Your task to perform on an android device: Open wifi settings Image 0: 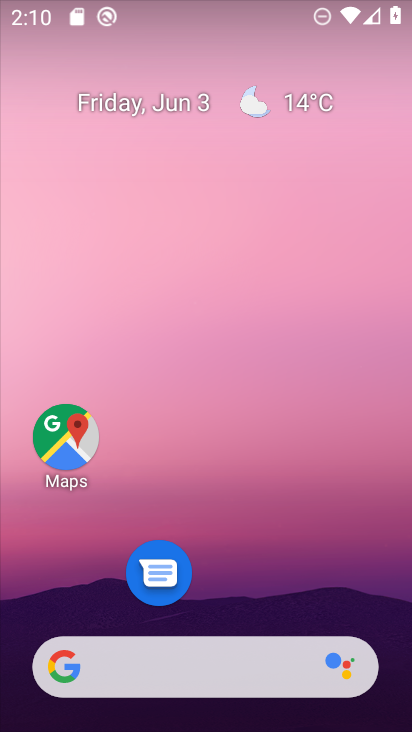
Step 0: drag from (248, 646) to (287, 101)
Your task to perform on an android device: Open wifi settings Image 1: 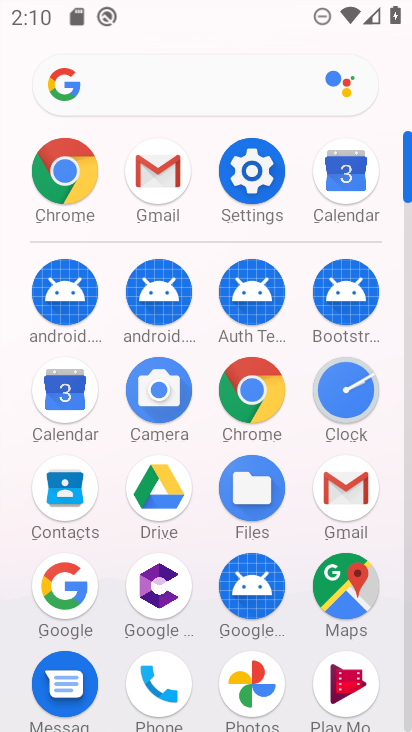
Step 1: click (255, 179)
Your task to perform on an android device: Open wifi settings Image 2: 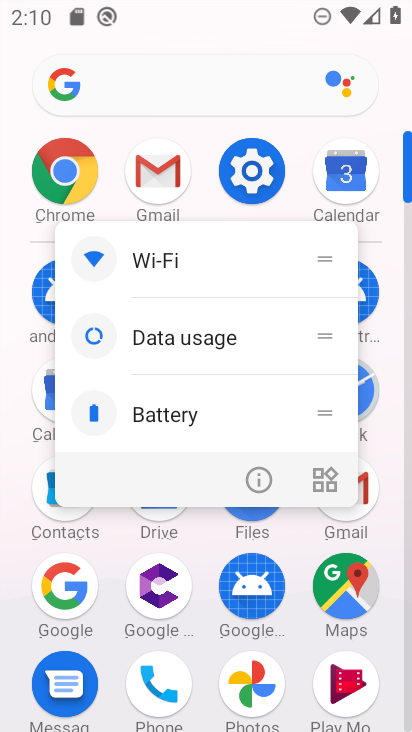
Step 2: click (192, 270)
Your task to perform on an android device: Open wifi settings Image 3: 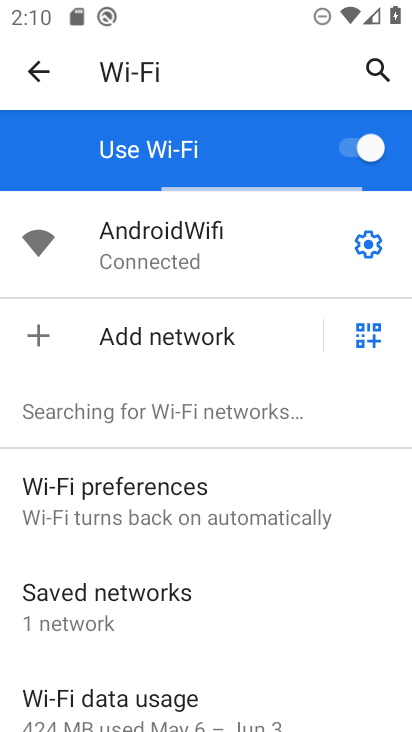
Step 3: task complete